Your task to perform on an android device: Open Chrome and go to settings Image 0: 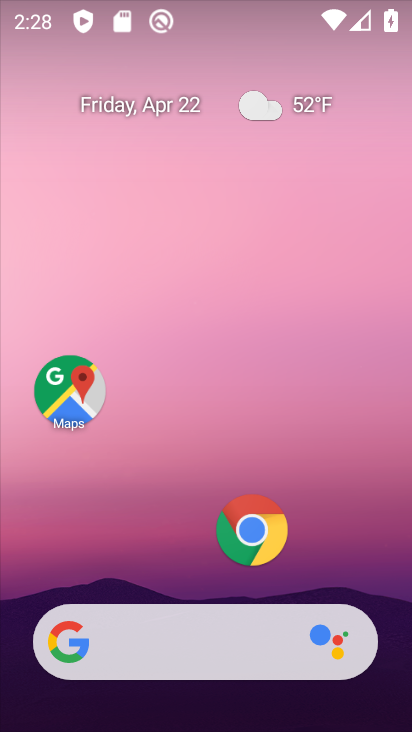
Step 0: click (247, 529)
Your task to perform on an android device: Open Chrome and go to settings Image 1: 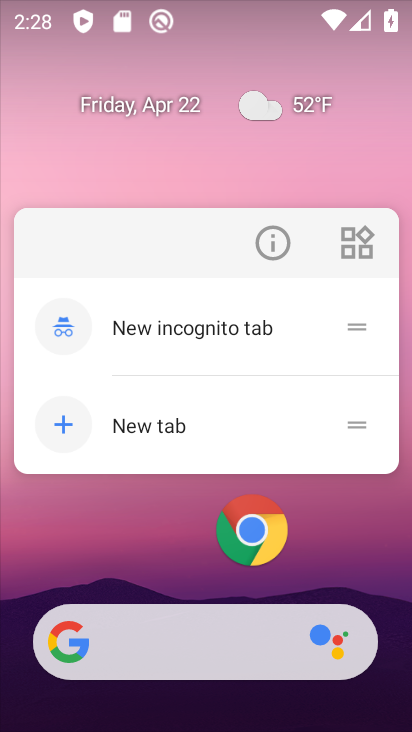
Step 1: click (247, 529)
Your task to perform on an android device: Open Chrome and go to settings Image 2: 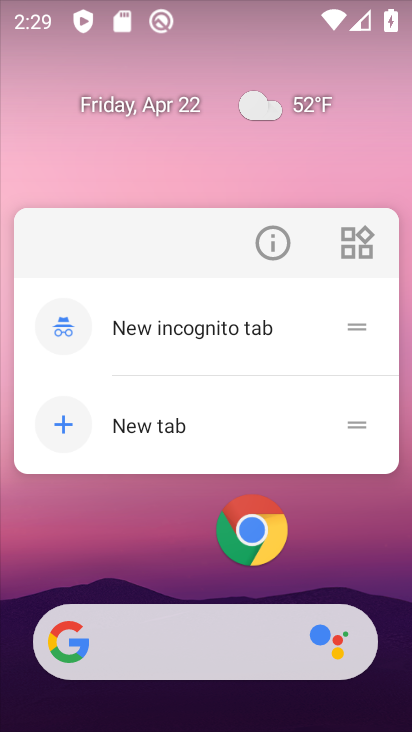
Step 2: click (239, 547)
Your task to perform on an android device: Open Chrome and go to settings Image 3: 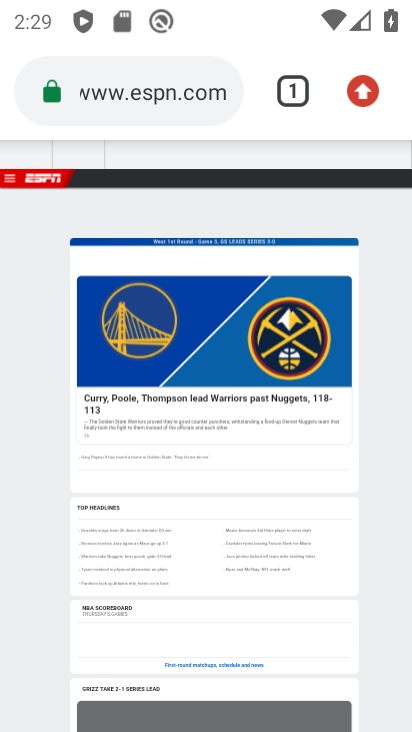
Step 3: task complete